Your task to perform on an android device: add a label to a message in the gmail app Image 0: 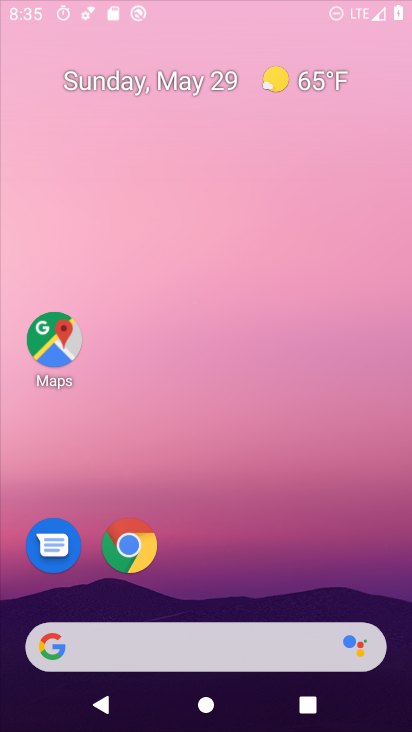
Step 0: click (217, 265)
Your task to perform on an android device: add a label to a message in the gmail app Image 1: 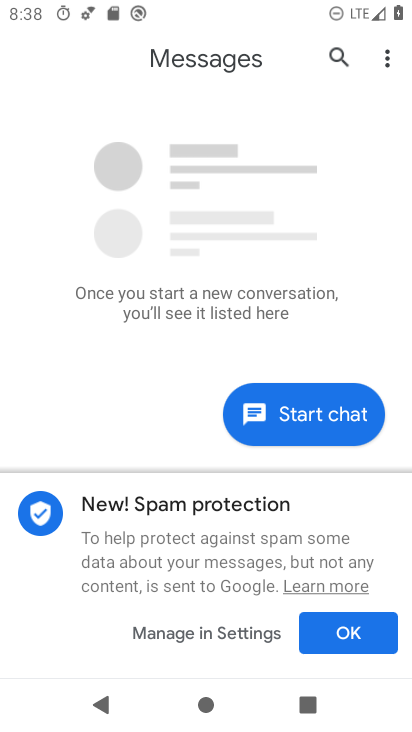
Step 1: press home button
Your task to perform on an android device: add a label to a message in the gmail app Image 2: 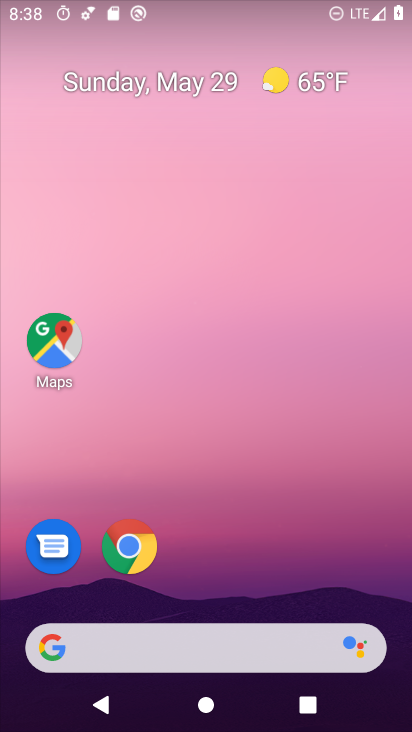
Step 2: drag from (203, 545) to (253, 35)
Your task to perform on an android device: add a label to a message in the gmail app Image 3: 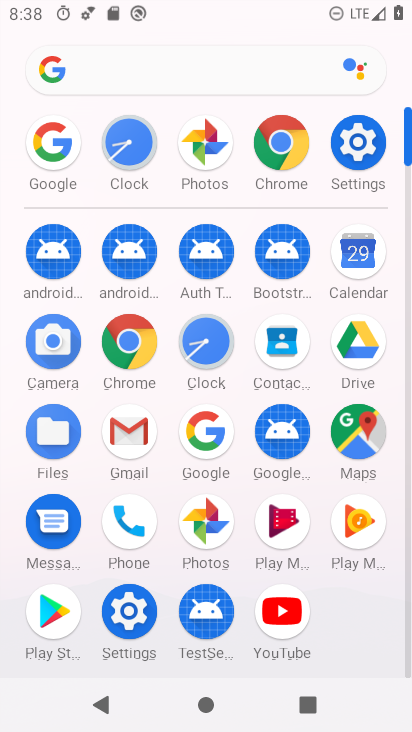
Step 3: click (126, 452)
Your task to perform on an android device: add a label to a message in the gmail app Image 4: 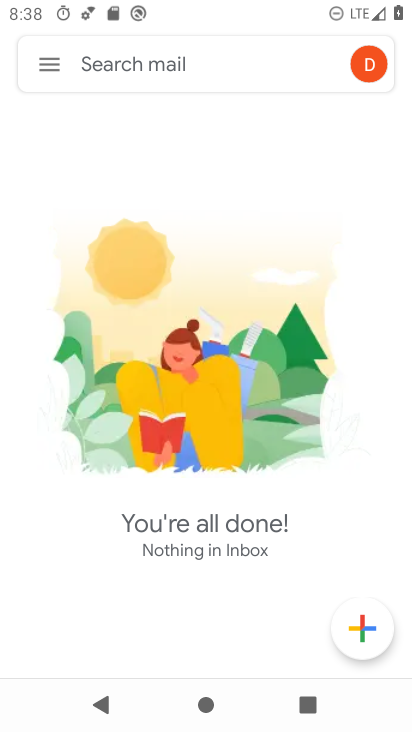
Step 4: click (60, 67)
Your task to perform on an android device: add a label to a message in the gmail app Image 5: 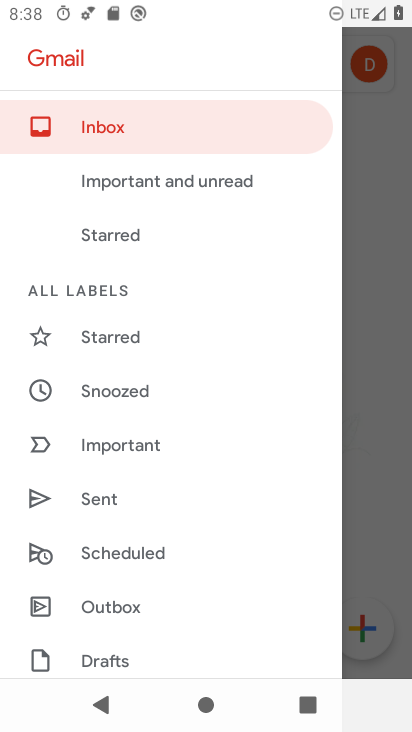
Step 5: task complete